Your task to perform on an android device: create a new album in the google photos Image 0: 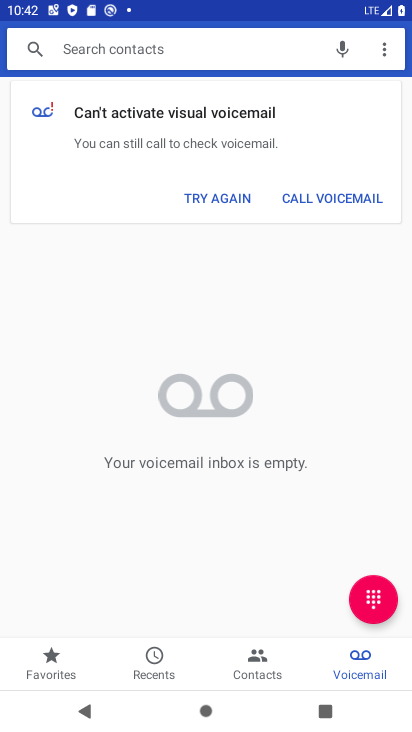
Step 0: press home button
Your task to perform on an android device: create a new album in the google photos Image 1: 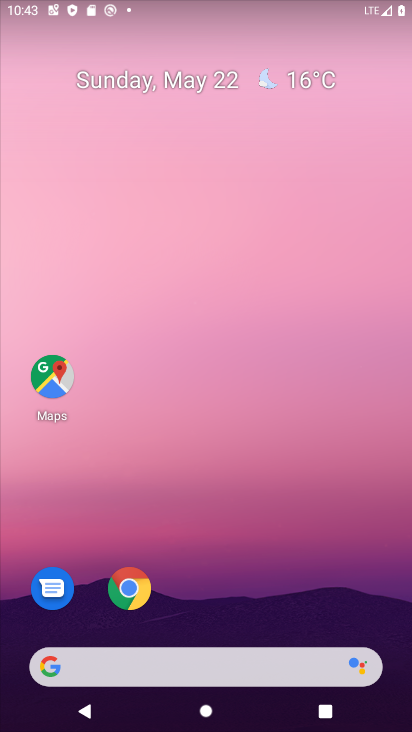
Step 1: drag from (187, 622) to (201, 177)
Your task to perform on an android device: create a new album in the google photos Image 2: 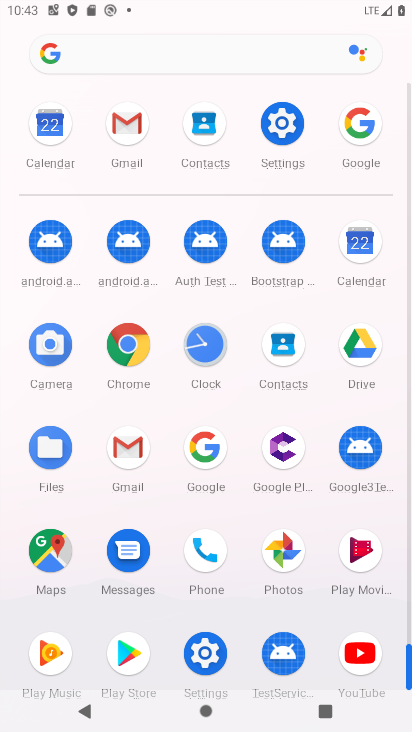
Step 2: click (286, 544)
Your task to perform on an android device: create a new album in the google photos Image 3: 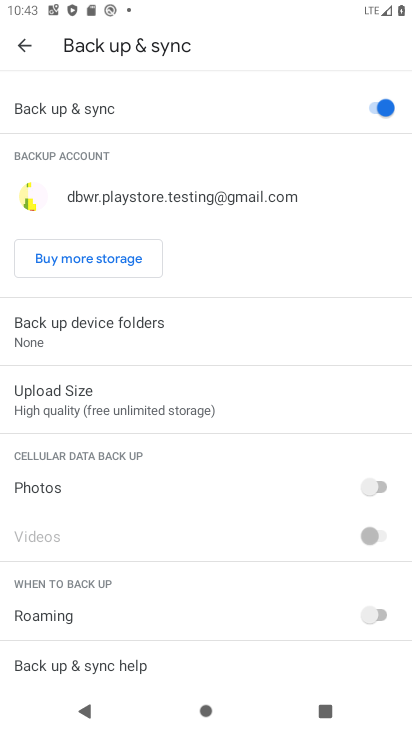
Step 3: click (26, 43)
Your task to perform on an android device: create a new album in the google photos Image 4: 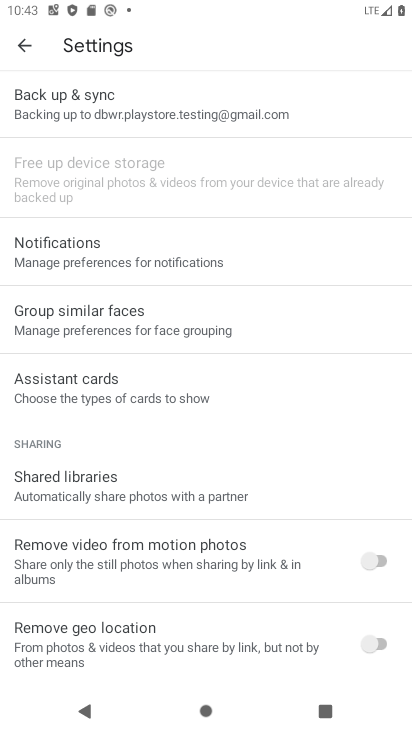
Step 4: click (23, 43)
Your task to perform on an android device: create a new album in the google photos Image 5: 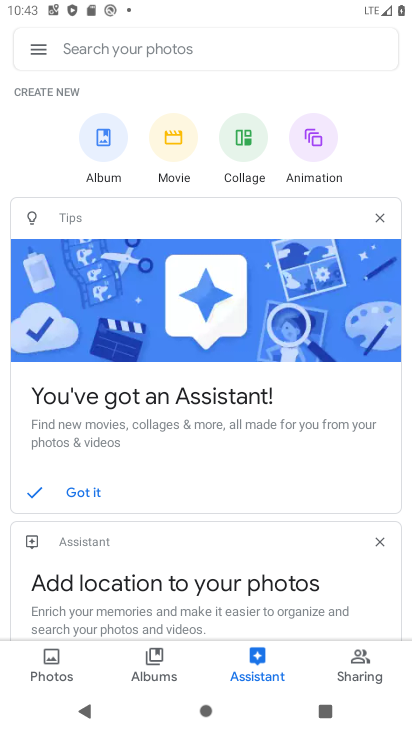
Step 5: click (55, 658)
Your task to perform on an android device: create a new album in the google photos Image 6: 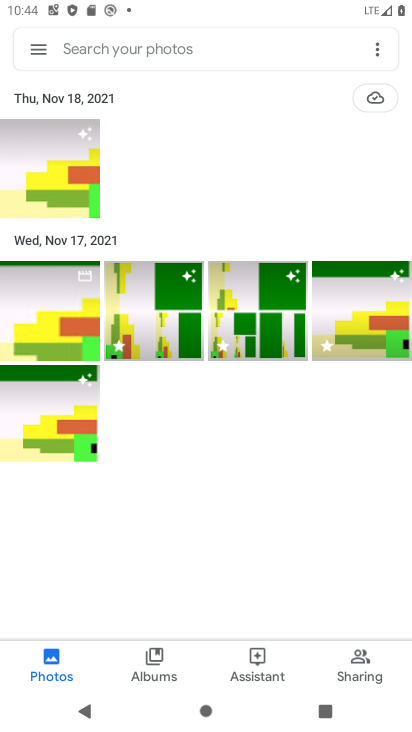
Step 6: click (374, 49)
Your task to perform on an android device: create a new album in the google photos Image 7: 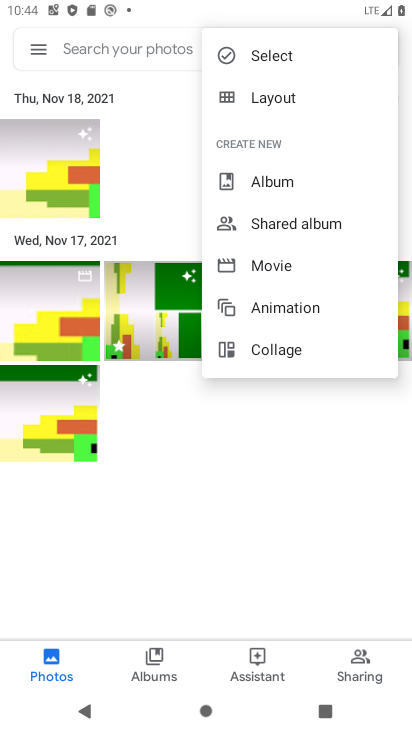
Step 7: click (289, 178)
Your task to perform on an android device: create a new album in the google photos Image 8: 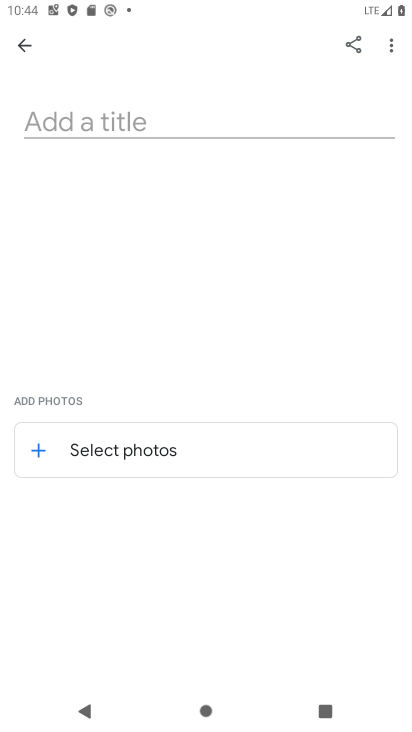
Step 8: click (229, 104)
Your task to perform on an android device: create a new album in the google photos Image 9: 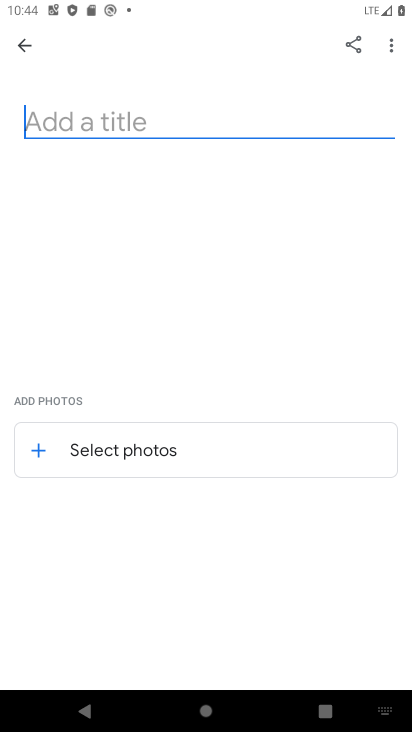
Step 9: type "mbhjvj"
Your task to perform on an android device: create a new album in the google photos Image 10: 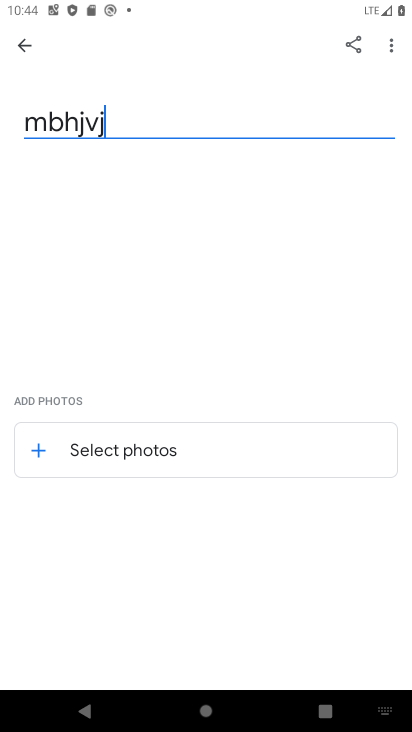
Step 10: click (42, 445)
Your task to perform on an android device: create a new album in the google photos Image 11: 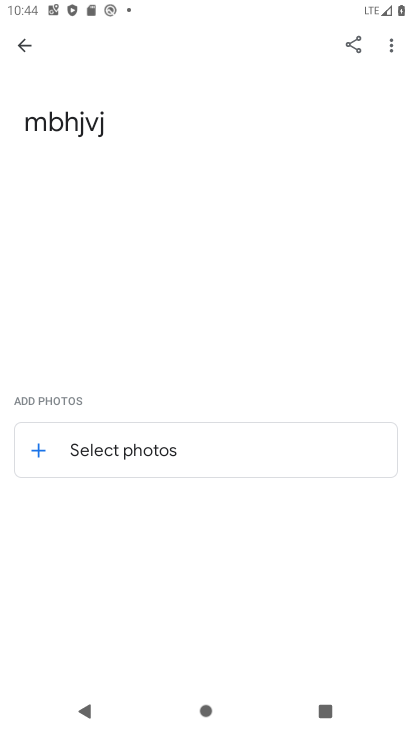
Step 11: click (34, 451)
Your task to perform on an android device: create a new album in the google photos Image 12: 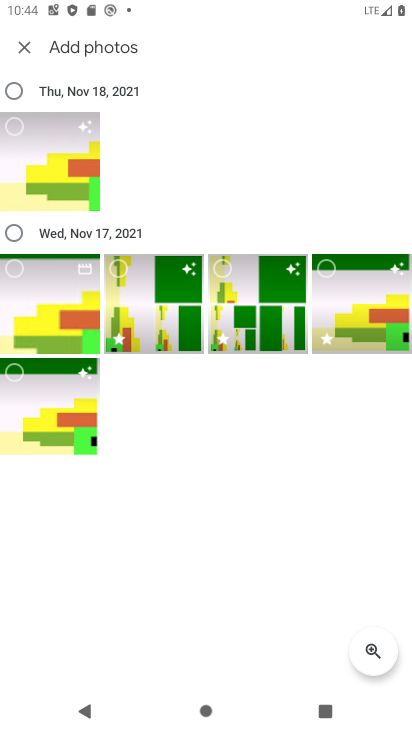
Step 12: click (46, 285)
Your task to perform on an android device: create a new album in the google photos Image 13: 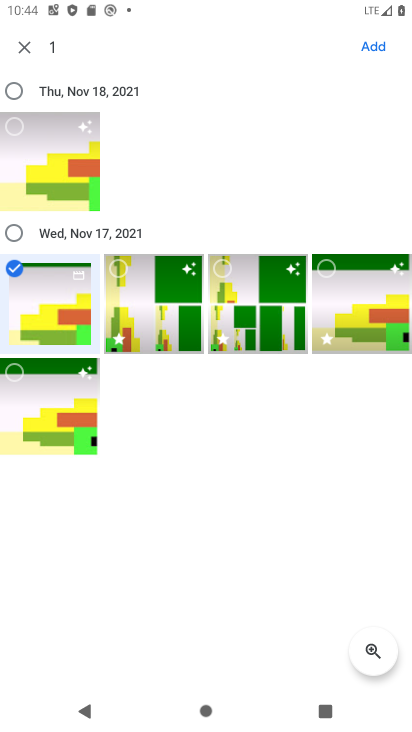
Step 13: click (180, 305)
Your task to perform on an android device: create a new album in the google photos Image 14: 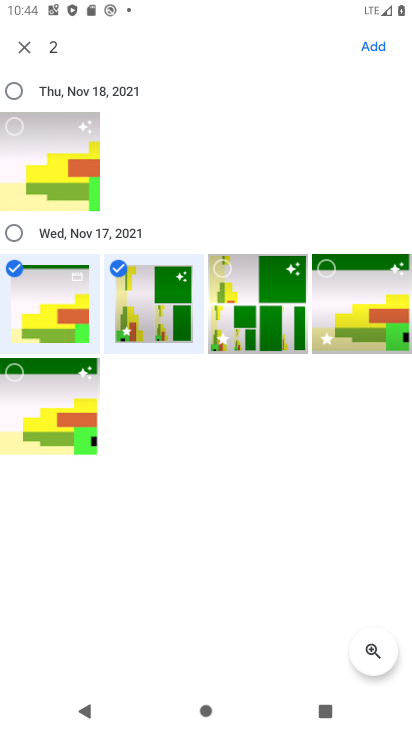
Step 14: click (375, 41)
Your task to perform on an android device: create a new album in the google photos Image 15: 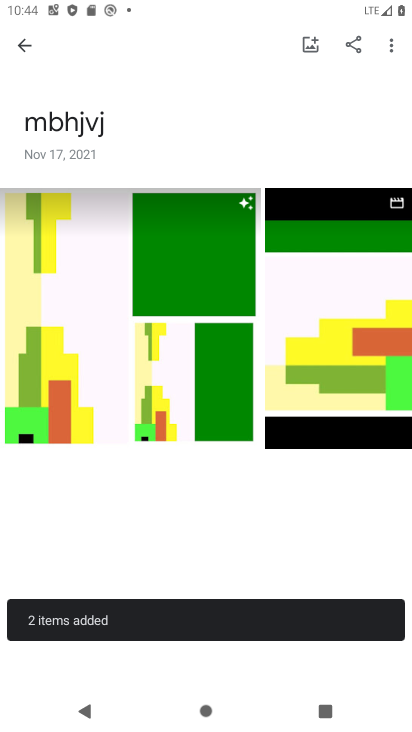
Step 15: task complete